Your task to perform on an android device: Open Maps and search for coffee Image 0: 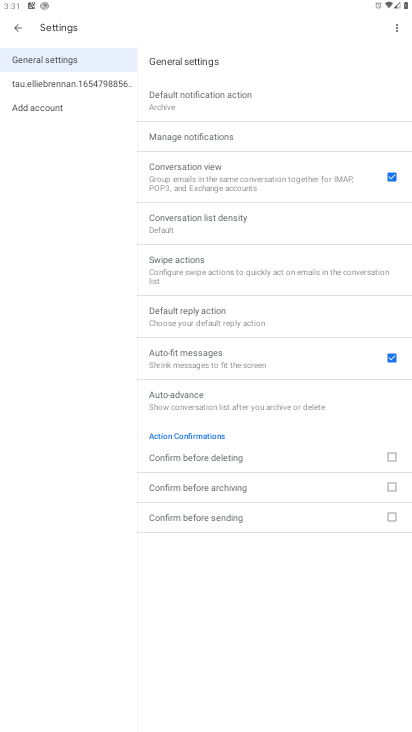
Step 0: press home button
Your task to perform on an android device: Open Maps and search for coffee Image 1: 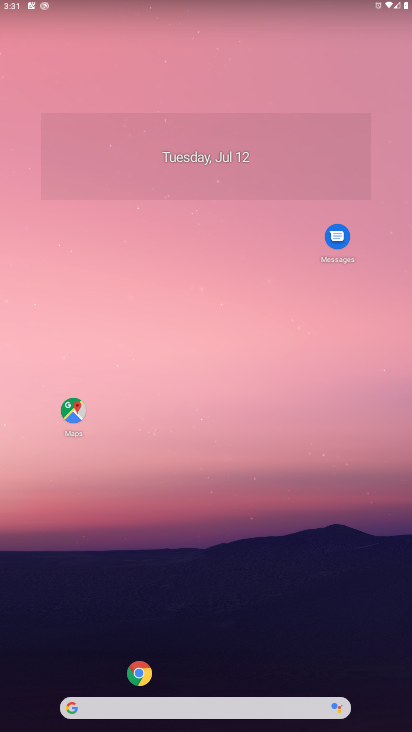
Step 1: click (80, 411)
Your task to perform on an android device: Open Maps and search for coffee Image 2: 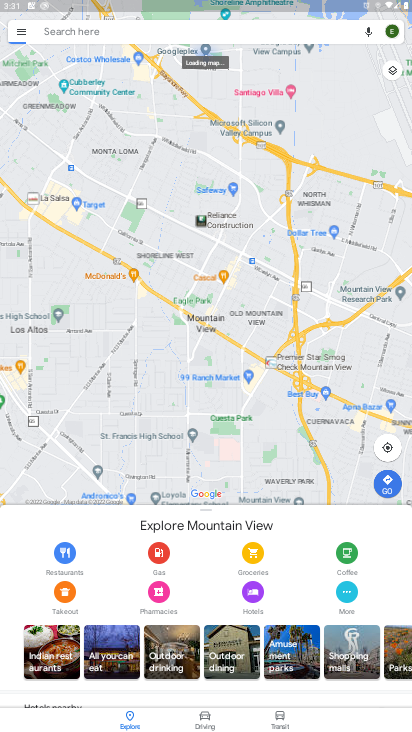
Step 2: click (54, 23)
Your task to perform on an android device: Open Maps and search for coffee Image 3: 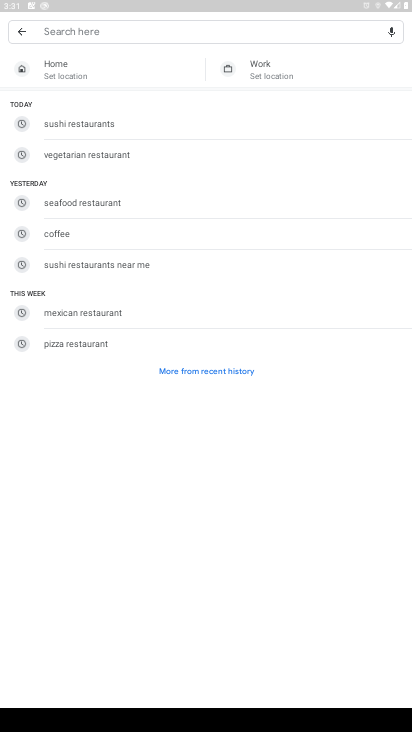
Step 3: type "coffee"
Your task to perform on an android device: Open Maps and search for coffee Image 4: 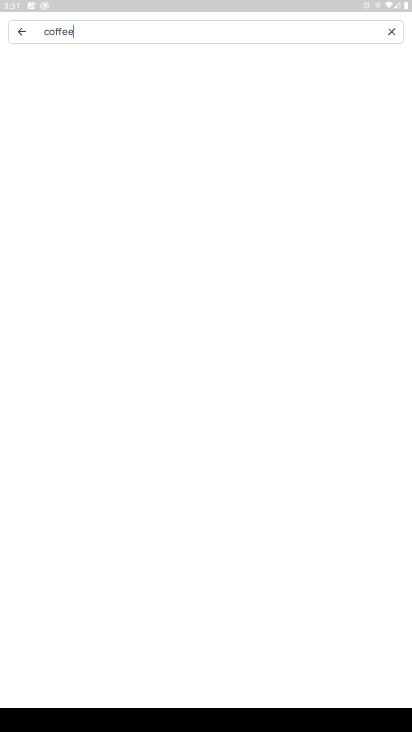
Step 4: type ""
Your task to perform on an android device: Open Maps and search for coffee Image 5: 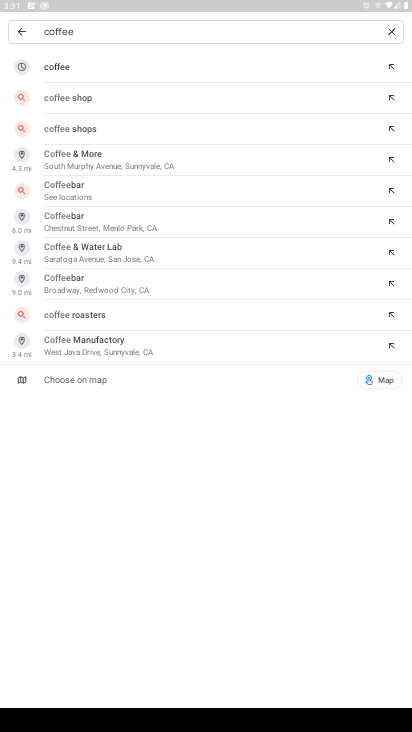
Step 5: click (73, 73)
Your task to perform on an android device: Open Maps and search for coffee Image 6: 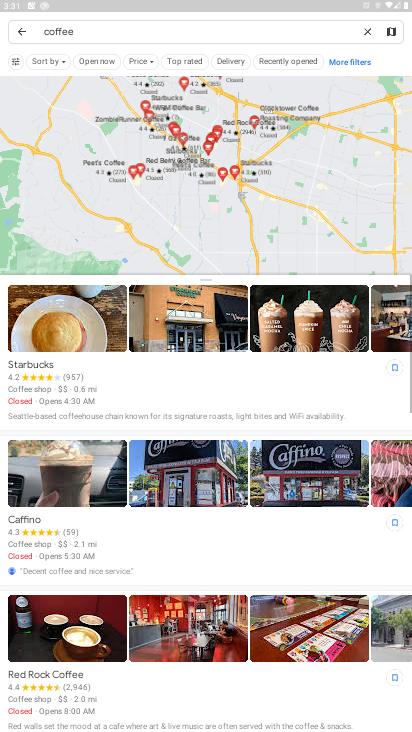
Step 6: task complete